Your task to perform on an android device: Do I have any events tomorrow? Image 0: 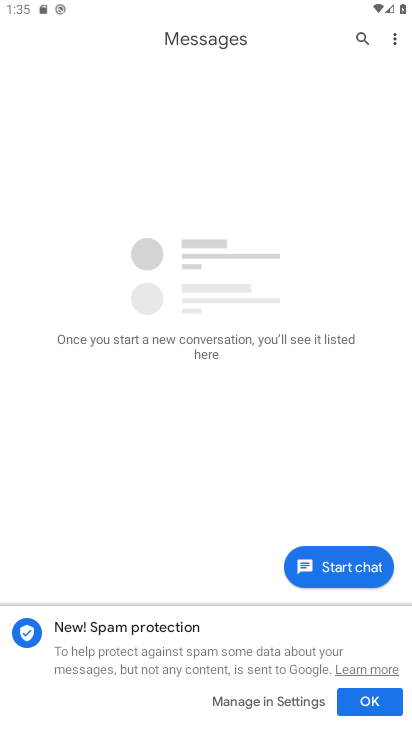
Step 0: press home button
Your task to perform on an android device: Do I have any events tomorrow? Image 1: 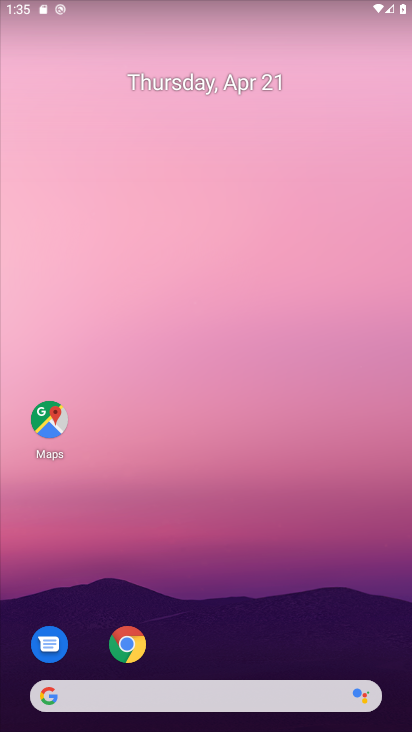
Step 1: drag from (212, 583) to (198, 76)
Your task to perform on an android device: Do I have any events tomorrow? Image 2: 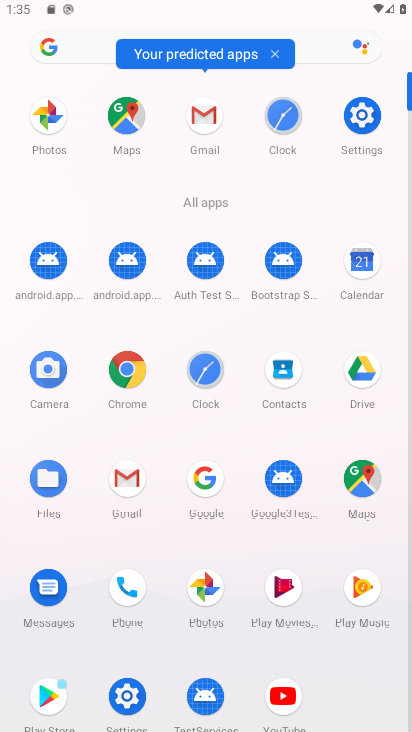
Step 2: click (359, 266)
Your task to perform on an android device: Do I have any events tomorrow? Image 3: 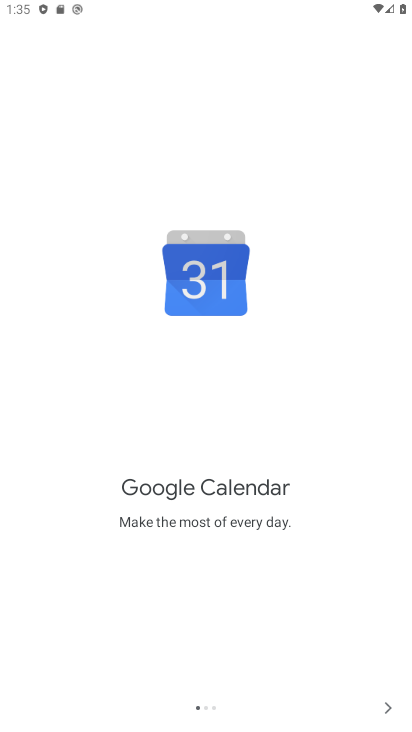
Step 3: click (386, 692)
Your task to perform on an android device: Do I have any events tomorrow? Image 4: 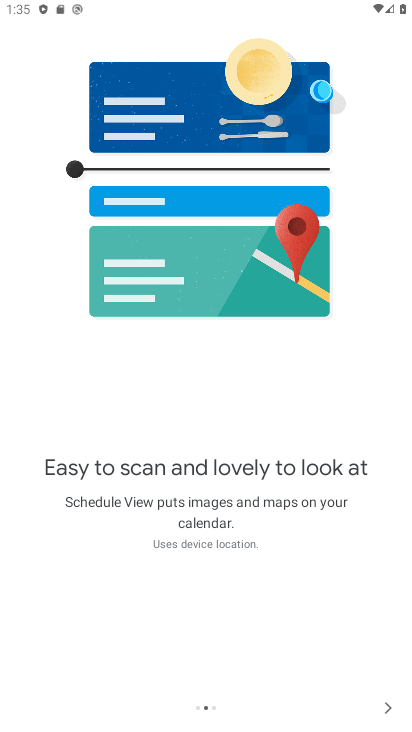
Step 4: click (388, 701)
Your task to perform on an android device: Do I have any events tomorrow? Image 5: 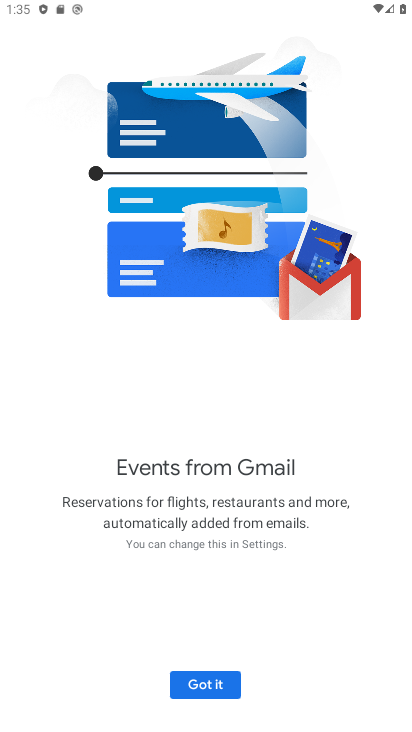
Step 5: click (205, 686)
Your task to perform on an android device: Do I have any events tomorrow? Image 6: 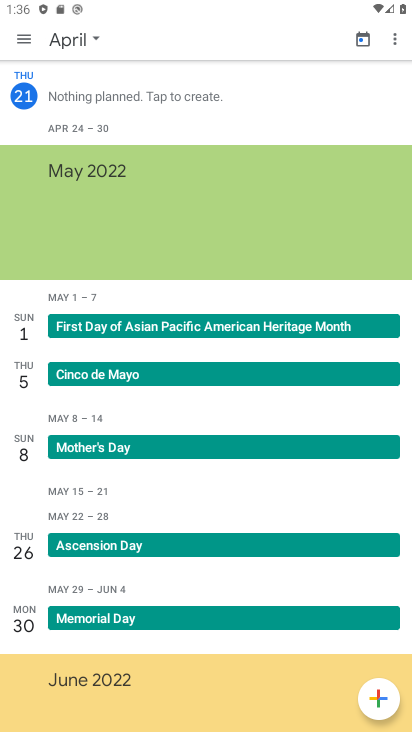
Step 6: click (84, 35)
Your task to perform on an android device: Do I have any events tomorrow? Image 7: 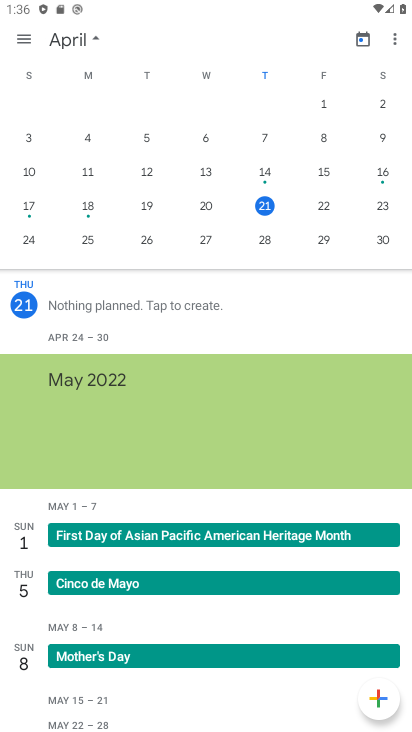
Step 7: click (320, 208)
Your task to perform on an android device: Do I have any events tomorrow? Image 8: 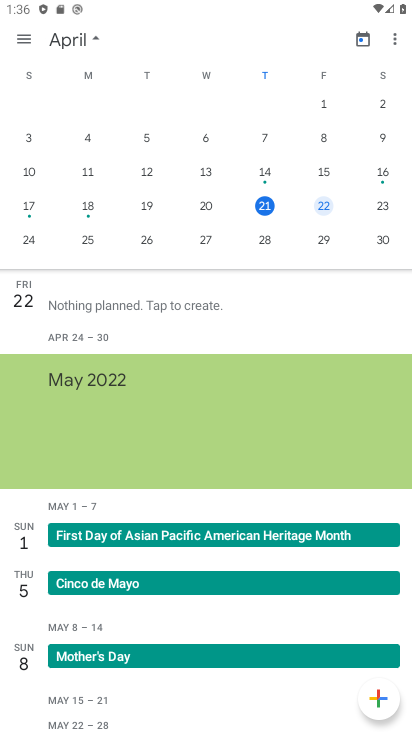
Step 8: task complete